Your task to perform on an android device: Go to sound settings Image 0: 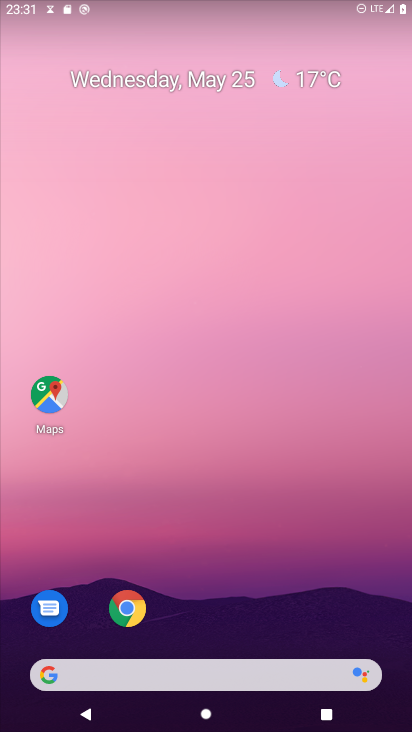
Step 0: drag from (259, 213) to (177, 17)
Your task to perform on an android device: Go to sound settings Image 1: 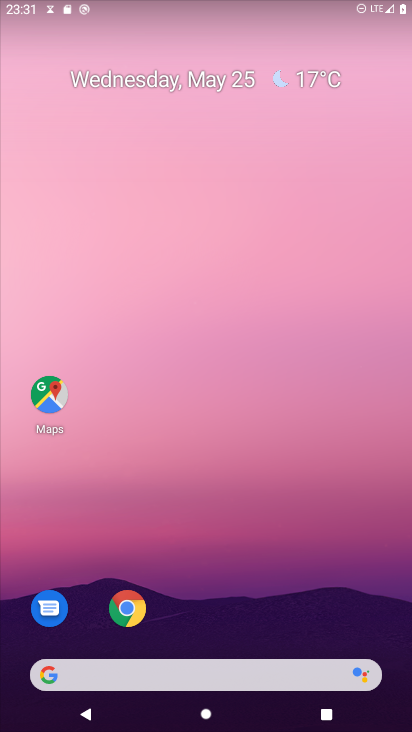
Step 1: drag from (259, 511) to (180, 9)
Your task to perform on an android device: Go to sound settings Image 2: 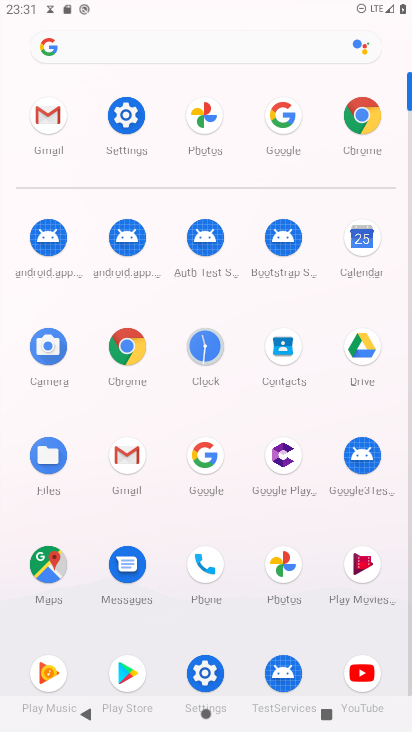
Step 2: click (122, 220)
Your task to perform on an android device: Go to sound settings Image 3: 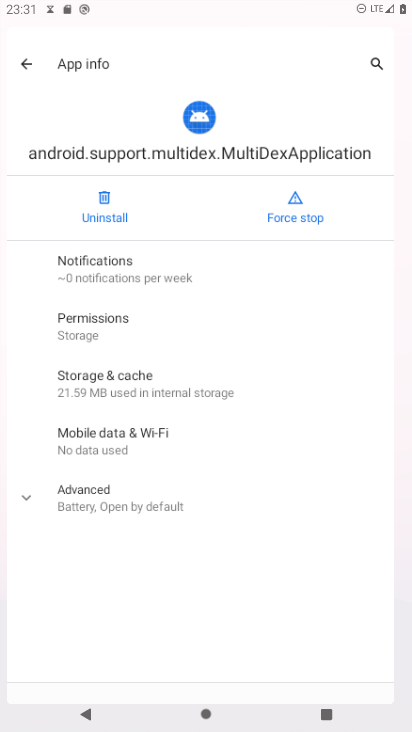
Step 3: click (133, 104)
Your task to perform on an android device: Go to sound settings Image 4: 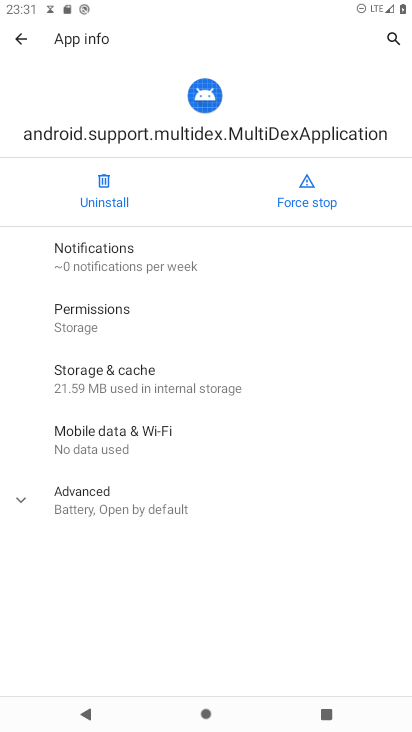
Step 4: click (20, 44)
Your task to perform on an android device: Go to sound settings Image 5: 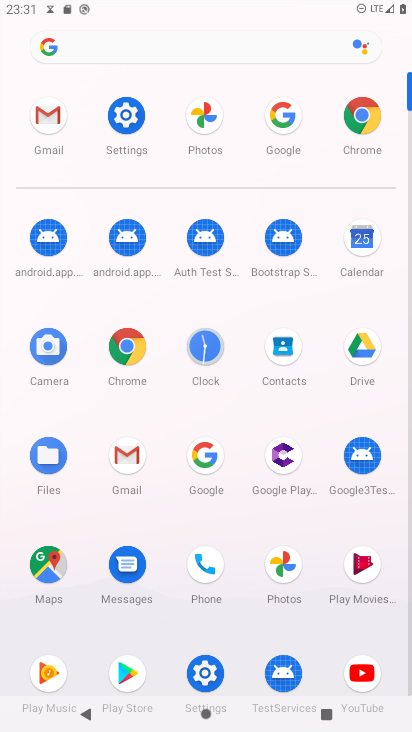
Step 5: click (119, 136)
Your task to perform on an android device: Go to sound settings Image 6: 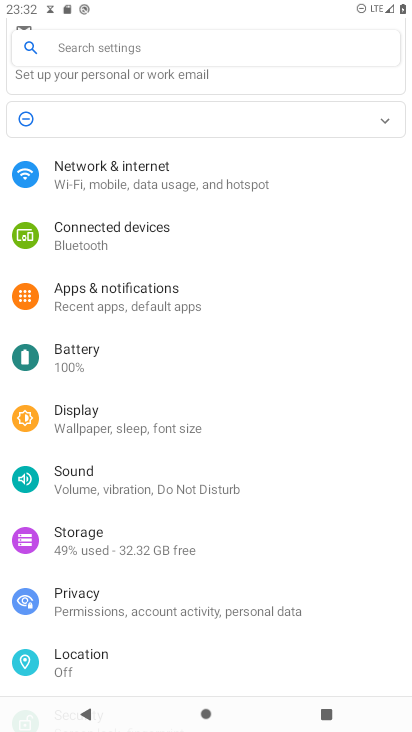
Step 6: click (131, 474)
Your task to perform on an android device: Go to sound settings Image 7: 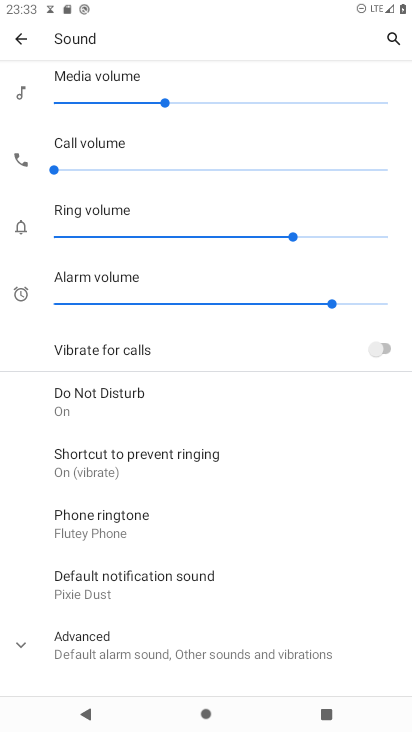
Step 7: task complete